Your task to perform on an android device: What is the recent news? Image 0: 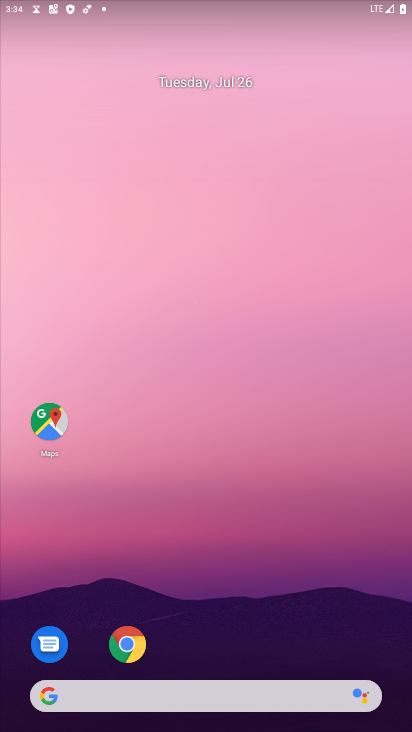
Step 0: drag from (173, 657) to (203, 121)
Your task to perform on an android device: What is the recent news? Image 1: 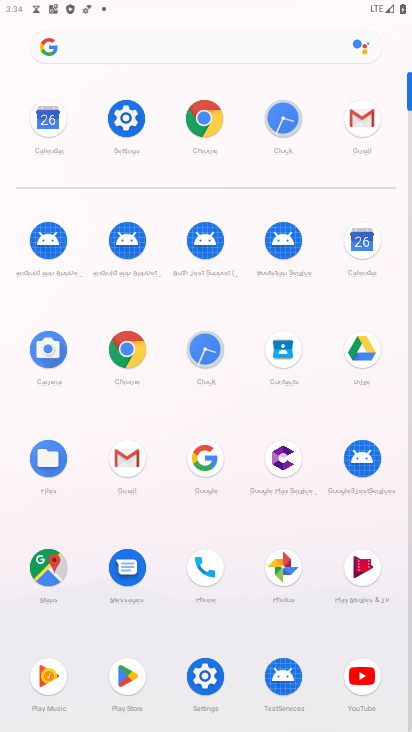
Step 1: click (203, 454)
Your task to perform on an android device: What is the recent news? Image 2: 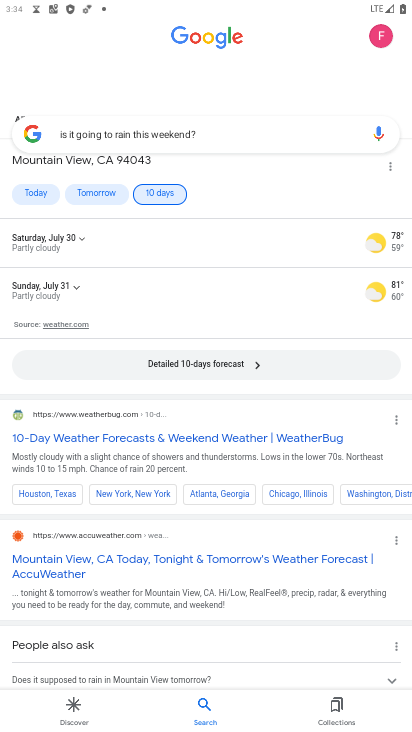
Step 2: click (228, 138)
Your task to perform on an android device: What is the recent news? Image 3: 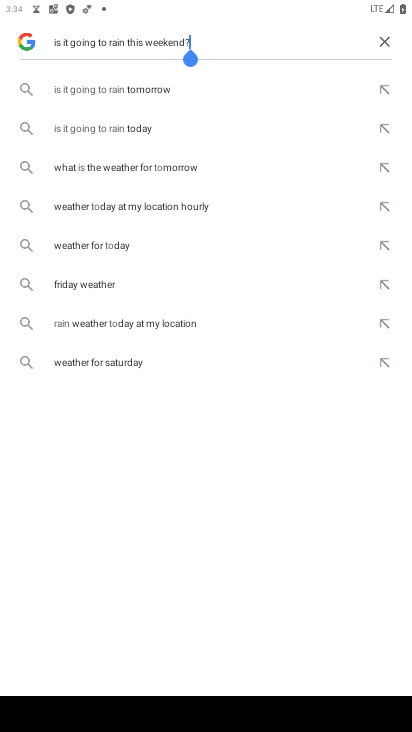
Step 3: click (383, 41)
Your task to perform on an android device: What is the recent news? Image 4: 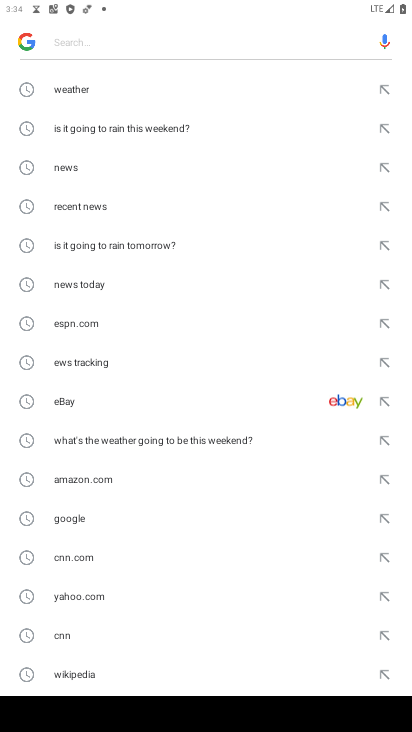
Step 4: click (71, 206)
Your task to perform on an android device: What is the recent news? Image 5: 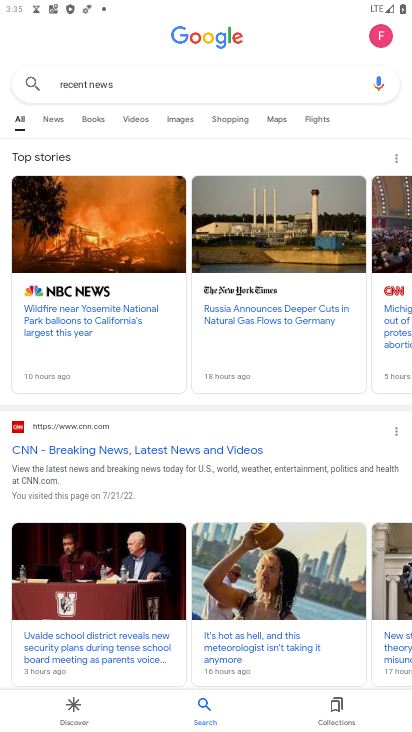
Step 5: task complete